Your task to perform on an android device: open a bookmark in the chrome app Image 0: 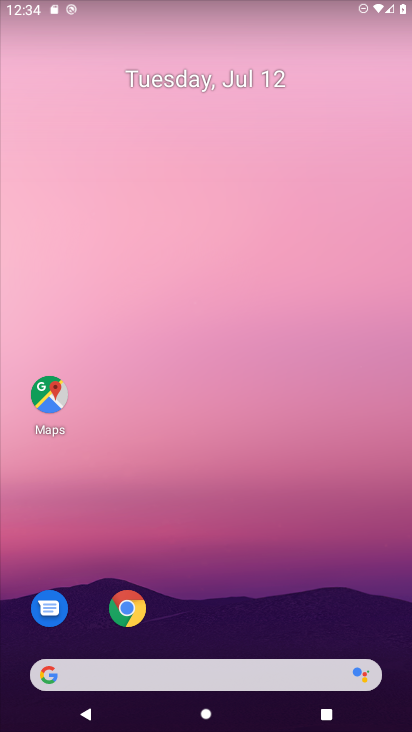
Step 0: click (117, 609)
Your task to perform on an android device: open a bookmark in the chrome app Image 1: 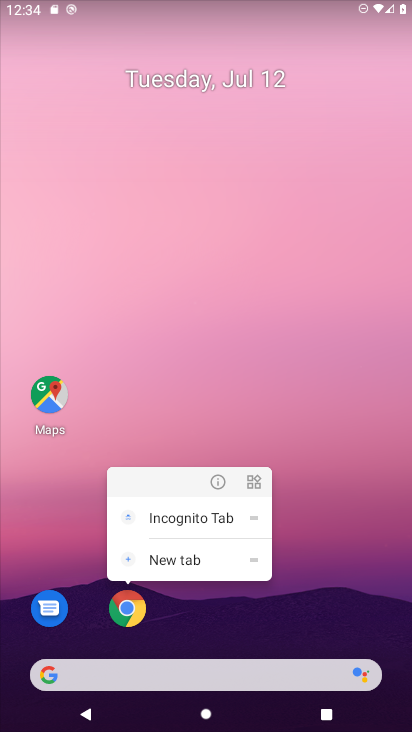
Step 1: click (131, 609)
Your task to perform on an android device: open a bookmark in the chrome app Image 2: 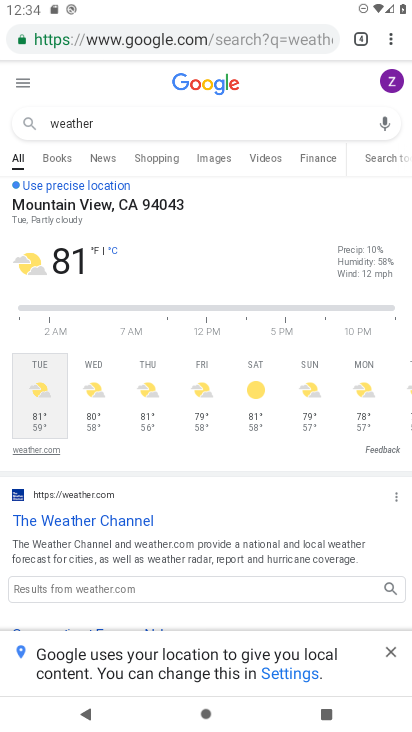
Step 2: click (389, 44)
Your task to perform on an android device: open a bookmark in the chrome app Image 3: 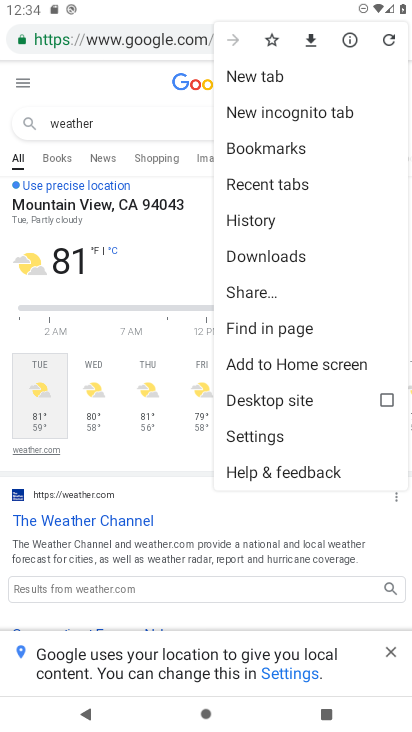
Step 3: click (251, 150)
Your task to perform on an android device: open a bookmark in the chrome app Image 4: 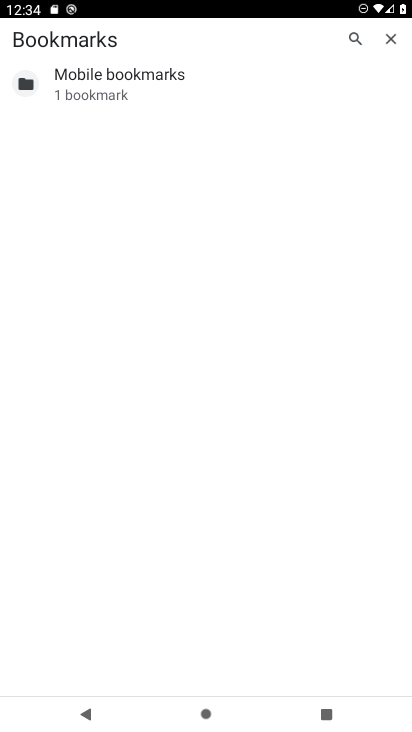
Step 4: task complete